Your task to perform on an android device: Open display settings Image 0: 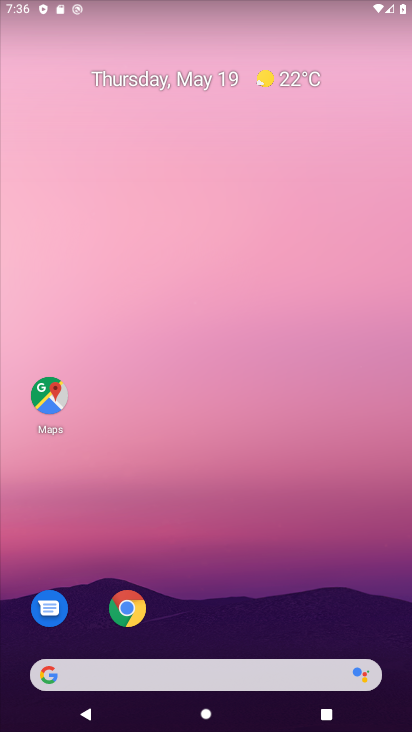
Step 0: drag from (264, 716) to (200, 9)
Your task to perform on an android device: Open display settings Image 1: 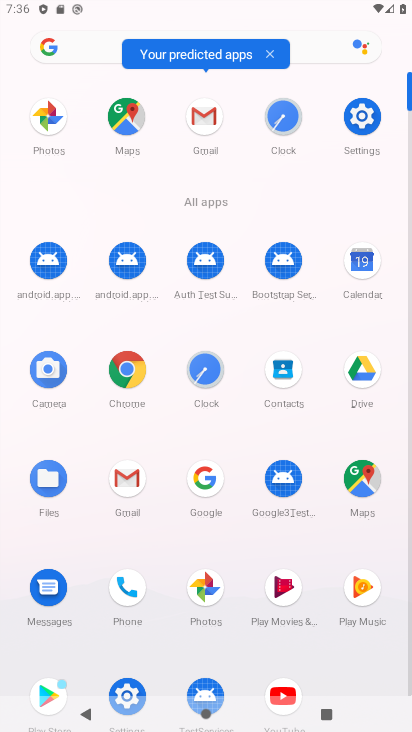
Step 1: click (350, 107)
Your task to perform on an android device: Open display settings Image 2: 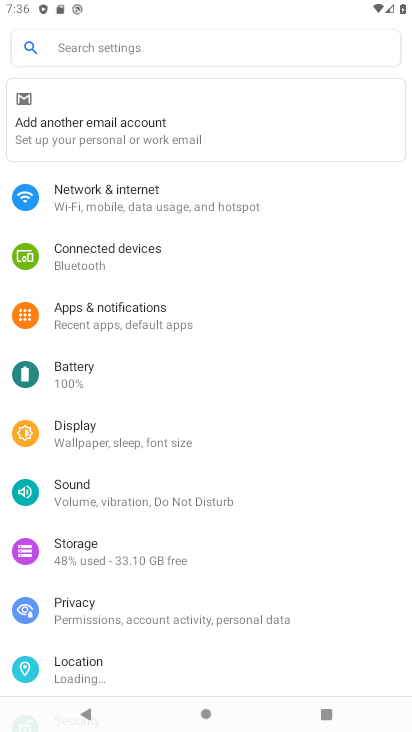
Step 2: click (156, 441)
Your task to perform on an android device: Open display settings Image 3: 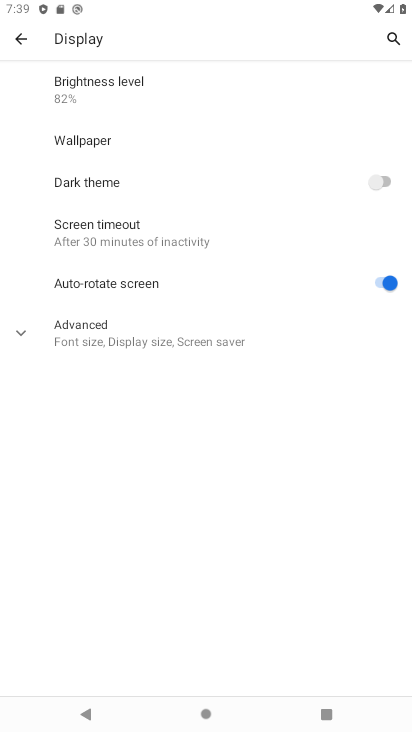
Step 3: task complete